Your task to perform on an android device: show emergency info Image 0: 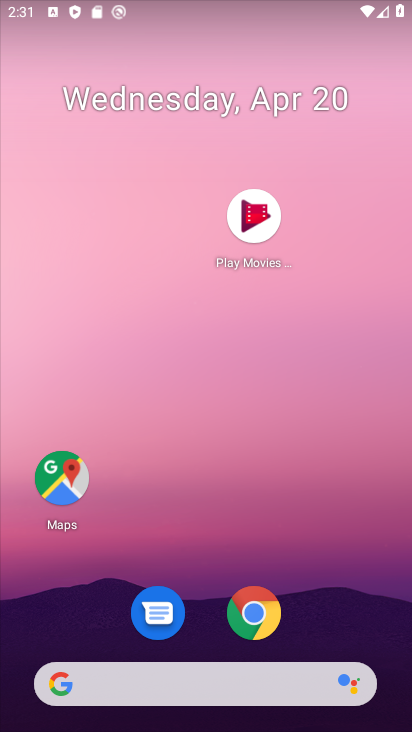
Step 0: drag from (328, 606) to (326, 120)
Your task to perform on an android device: show emergency info Image 1: 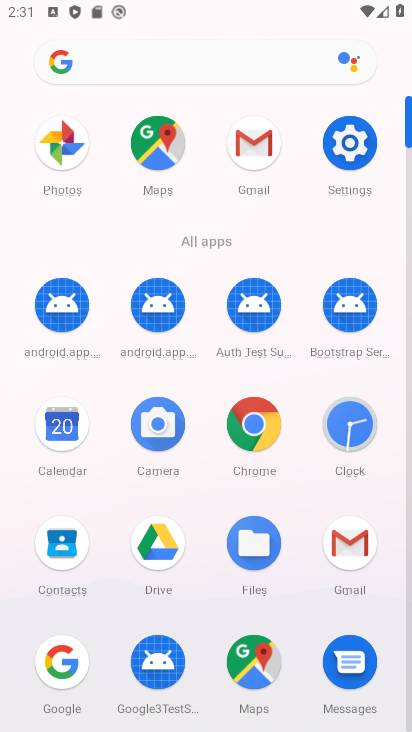
Step 1: drag from (208, 574) to (220, 207)
Your task to perform on an android device: show emergency info Image 2: 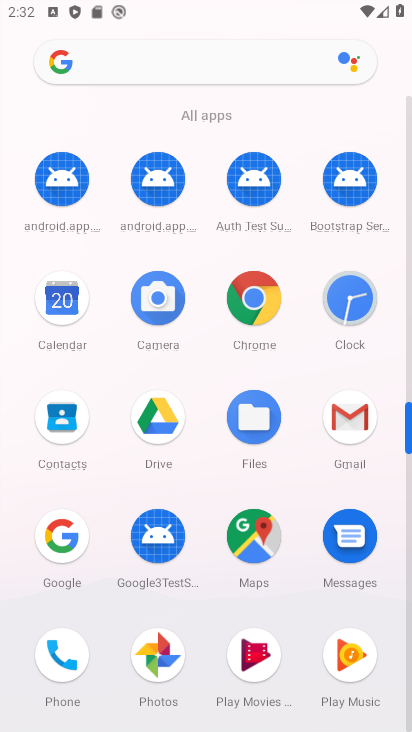
Step 2: drag from (205, 543) to (226, 141)
Your task to perform on an android device: show emergency info Image 3: 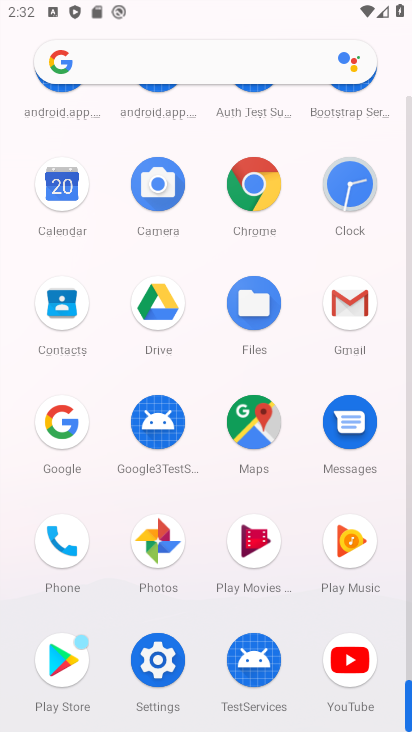
Step 3: click (152, 671)
Your task to perform on an android device: show emergency info Image 4: 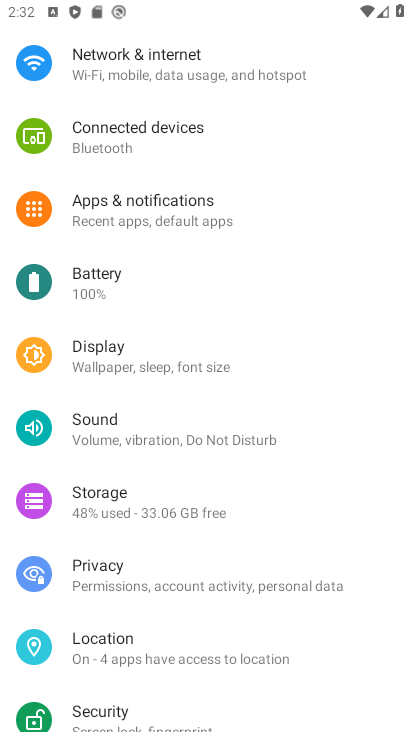
Step 4: drag from (176, 614) to (217, 179)
Your task to perform on an android device: show emergency info Image 5: 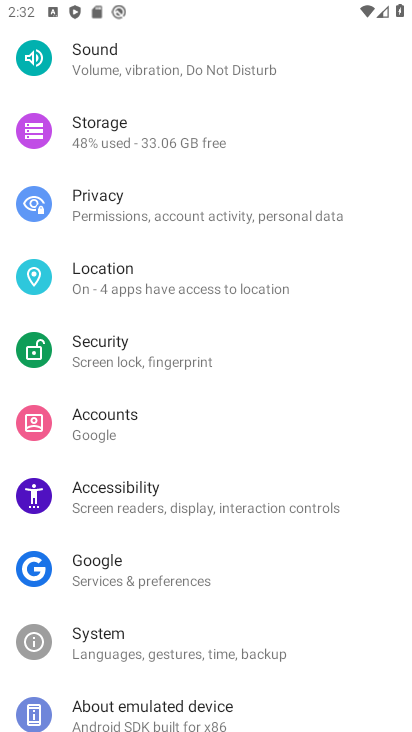
Step 5: drag from (200, 644) to (205, 286)
Your task to perform on an android device: show emergency info Image 6: 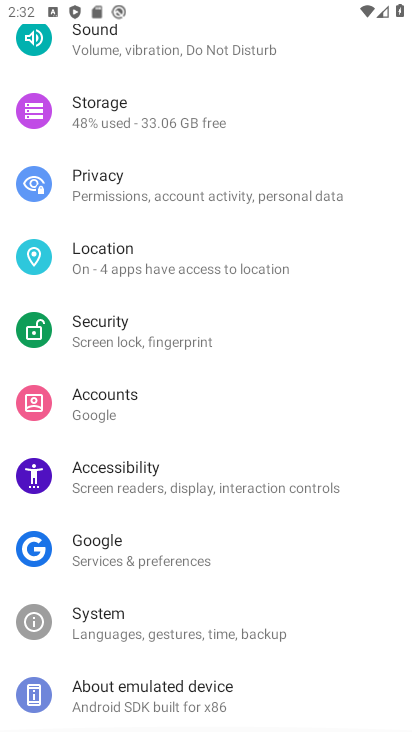
Step 6: click (190, 698)
Your task to perform on an android device: show emergency info Image 7: 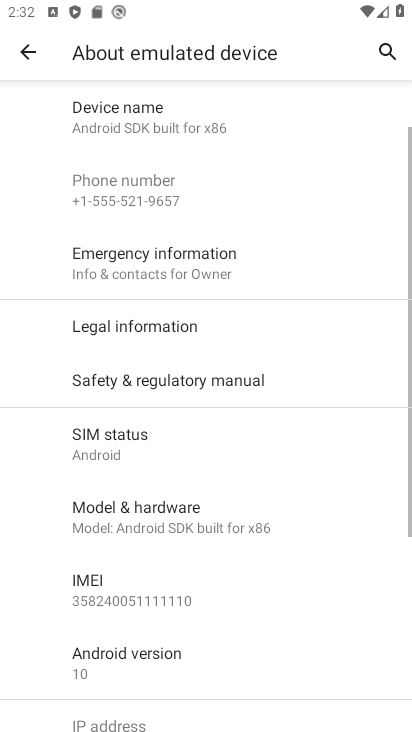
Step 7: click (193, 699)
Your task to perform on an android device: show emergency info Image 8: 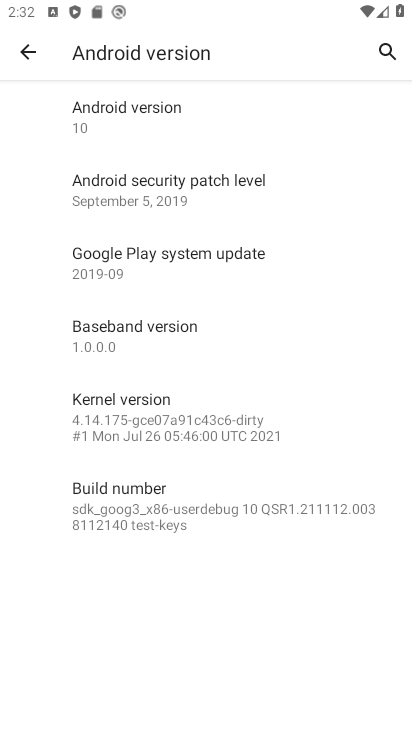
Step 8: click (26, 55)
Your task to perform on an android device: show emergency info Image 9: 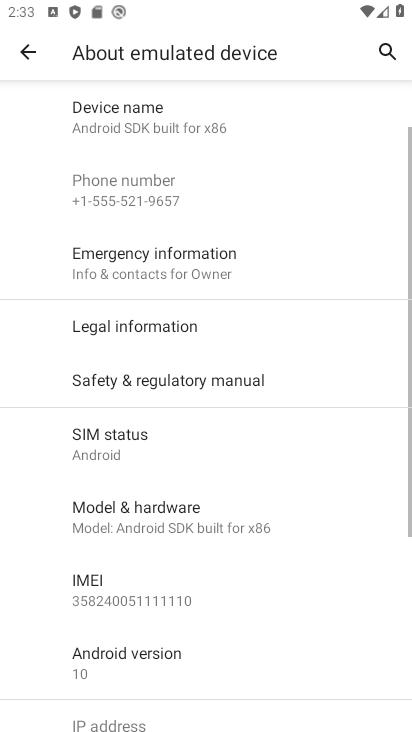
Step 9: click (233, 270)
Your task to perform on an android device: show emergency info Image 10: 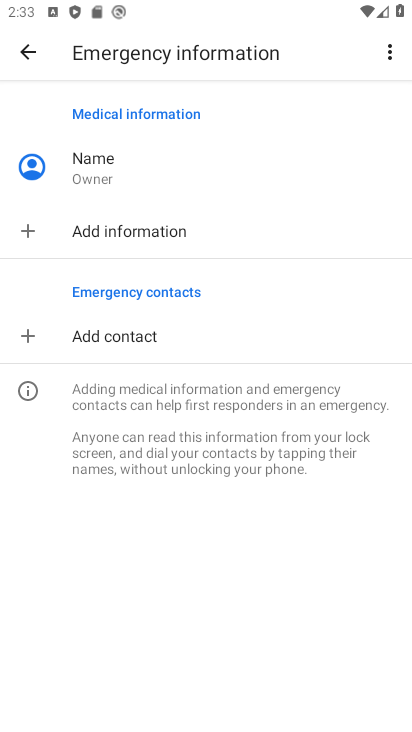
Step 10: task complete